Your task to perform on an android device: turn on wifi Image 0: 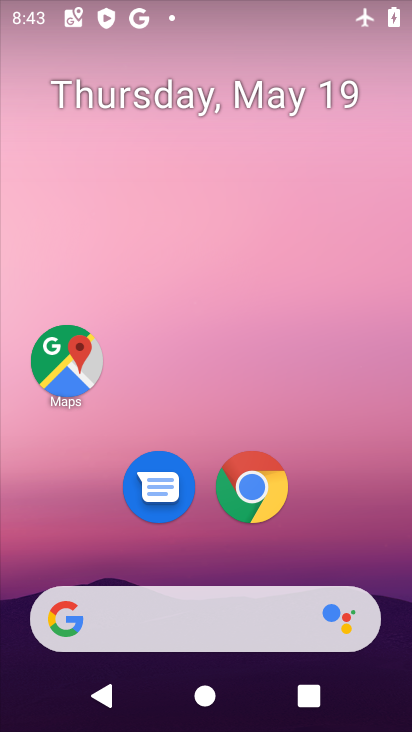
Step 0: drag from (158, 566) to (91, 17)
Your task to perform on an android device: turn on wifi Image 1: 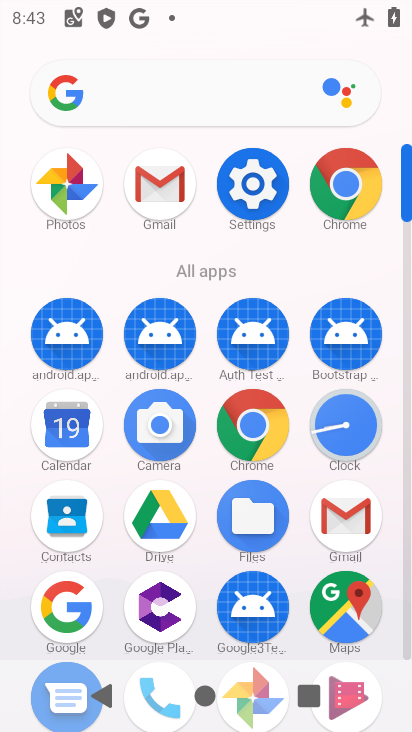
Step 1: click (252, 175)
Your task to perform on an android device: turn on wifi Image 2: 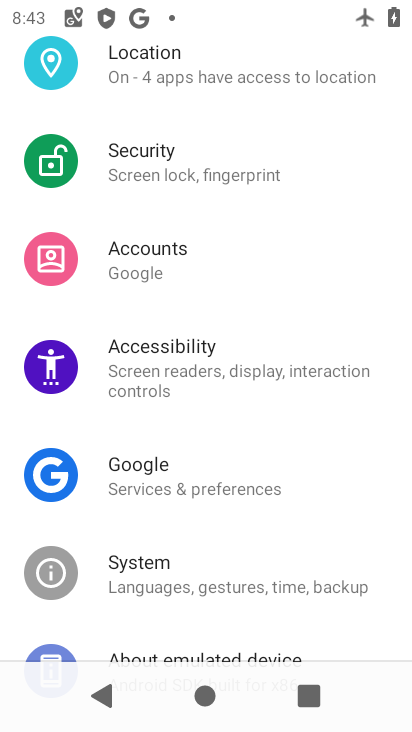
Step 2: drag from (250, 205) to (226, 628)
Your task to perform on an android device: turn on wifi Image 3: 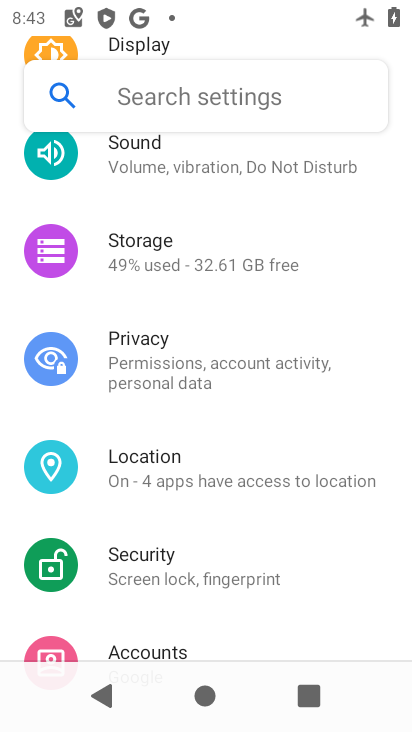
Step 3: drag from (231, 226) to (203, 462)
Your task to perform on an android device: turn on wifi Image 4: 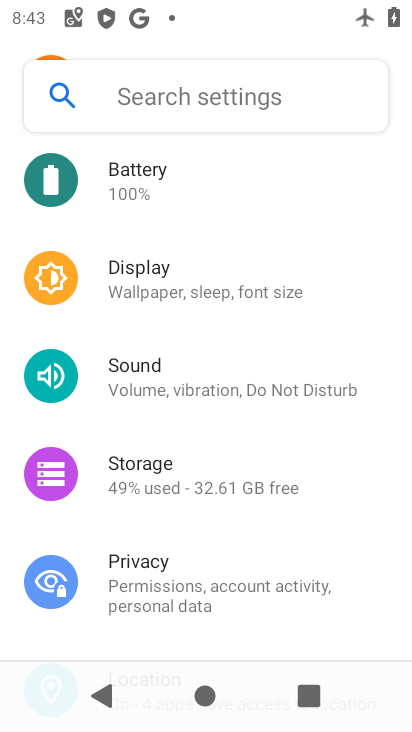
Step 4: drag from (222, 200) to (196, 719)
Your task to perform on an android device: turn on wifi Image 5: 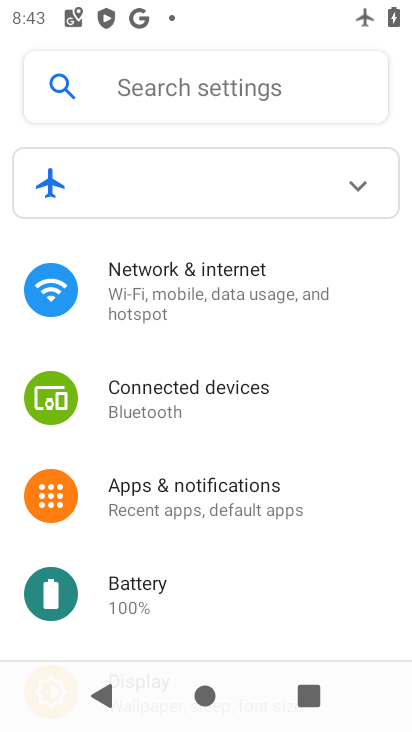
Step 5: click (175, 305)
Your task to perform on an android device: turn on wifi Image 6: 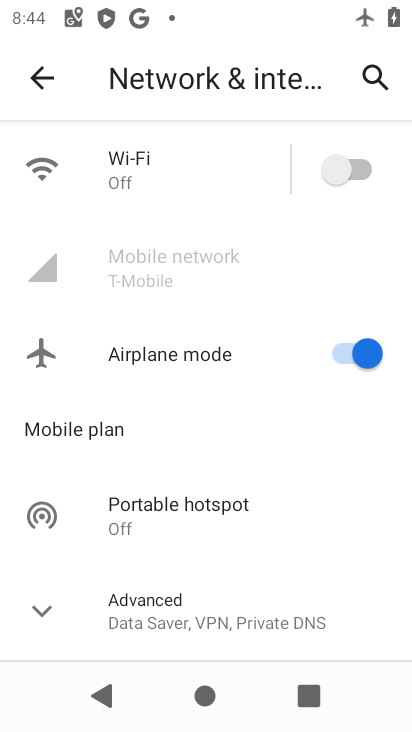
Step 6: click (343, 175)
Your task to perform on an android device: turn on wifi Image 7: 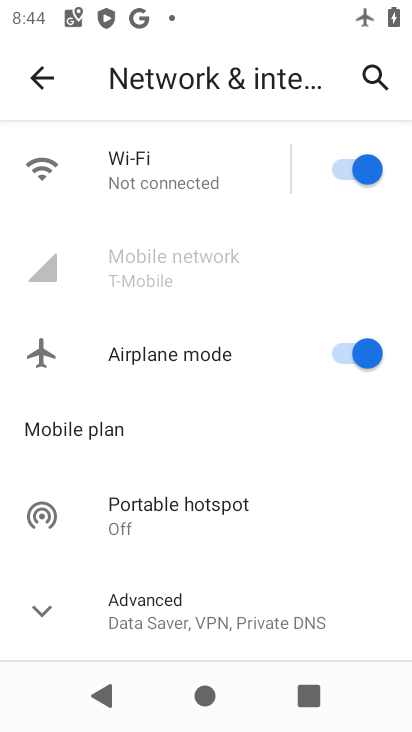
Step 7: task complete